Your task to perform on an android device: Go to Maps Image 0: 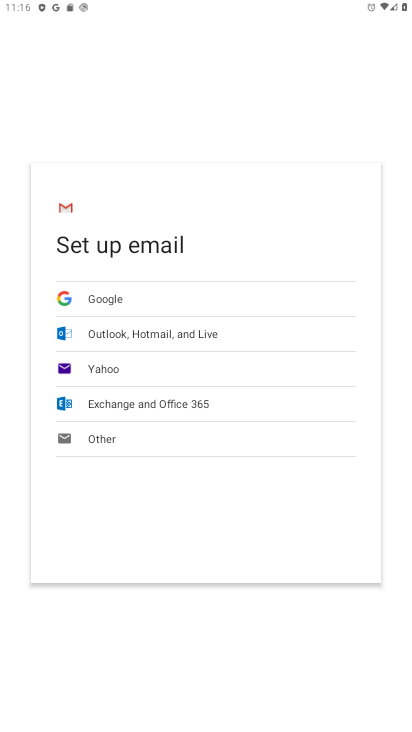
Step 0: press home button
Your task to perform on an android device: Go to Maps Image 1: 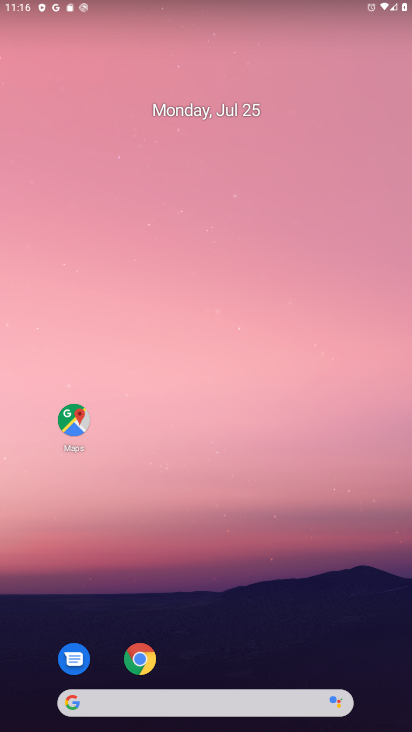
Step 1: click (71, 422)
Your task to perform on an android device: Go to Maps Image 2: 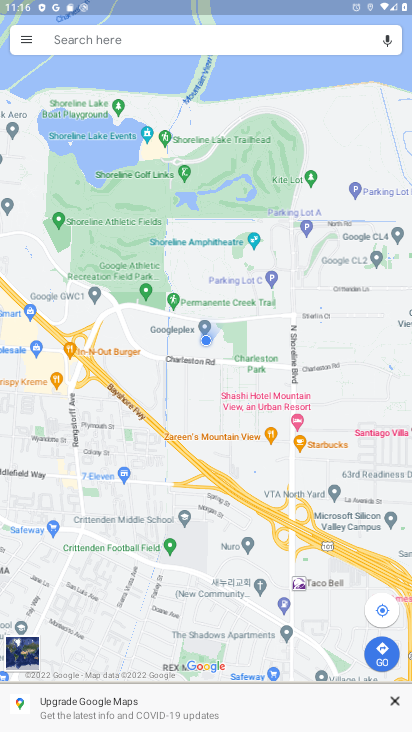
Step 2: task complete